Your task to perform on an android device: turn off translation in the chrome app Image 0: 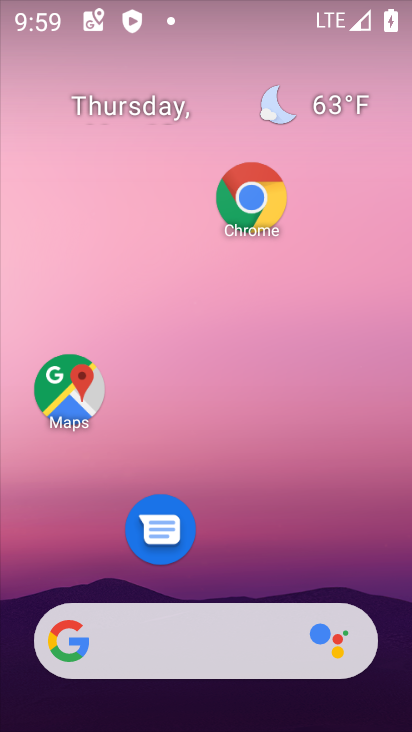
Step 0: drag from (198, 645) to (175, 155)
Your task to perform on an android device: turn off translation in the chrome app Image 1: 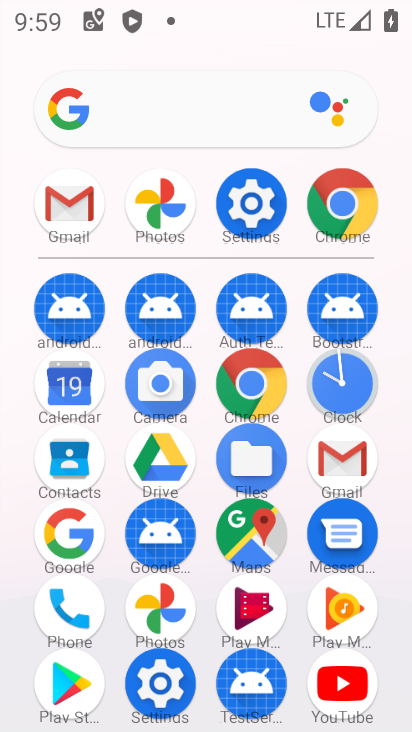
Step 1: click (356, 224)
Your task to perform on an android device: turn off translation in the chrome app Image 2: 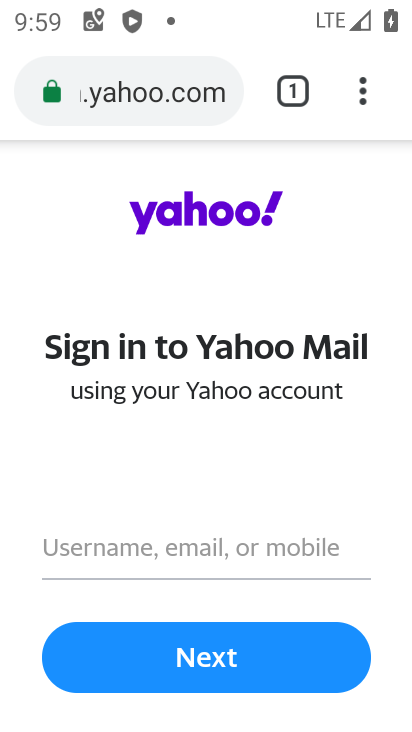
Step 2: click (373, 106)
Your task to perform on an android device: turn off translation in the chrome app Image 3: 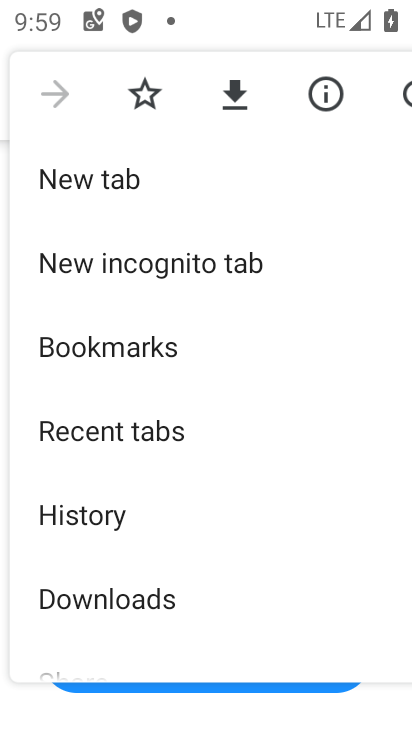
Step 3: task complete